Your task to perform on an android device: search for starred emails in the gmail app Image 0: 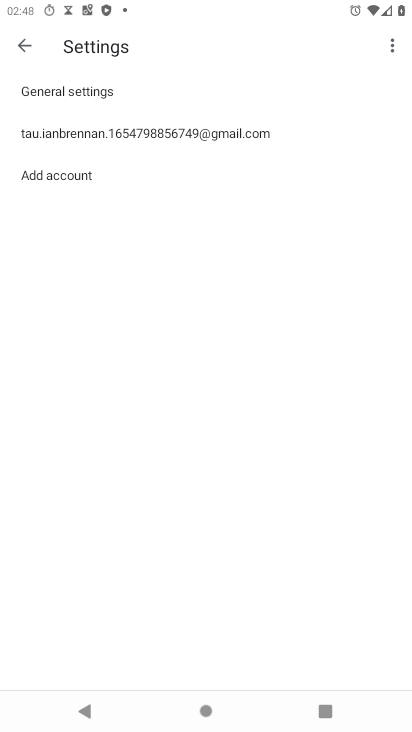
Step 0: press back button
Your task to perform on an android device: search for starred emails in the gmail app Image 1: 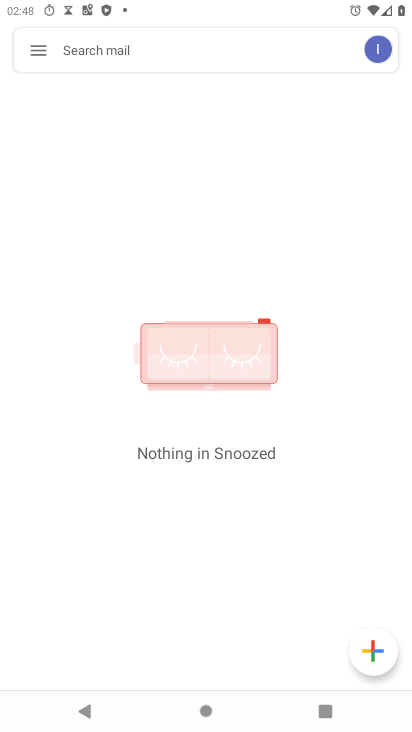
Step 1: click (35, 43)
Your task to perform on an android device: search for starred emails in the gmail app Image 2: 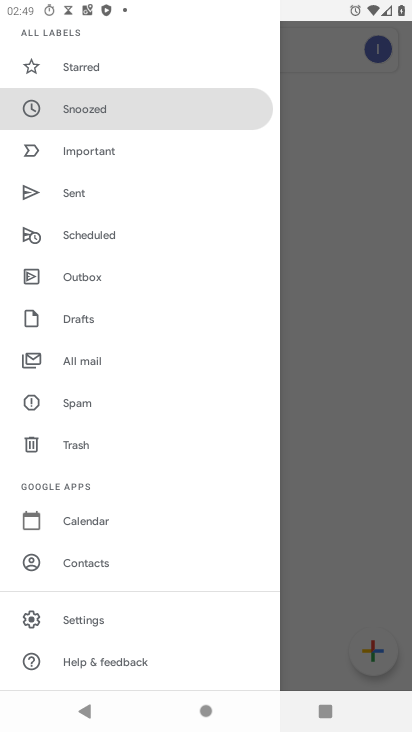
Step 2: click (97, 75)
Your task to perform on an android device: search for starred emails in the gmail app Image 3: 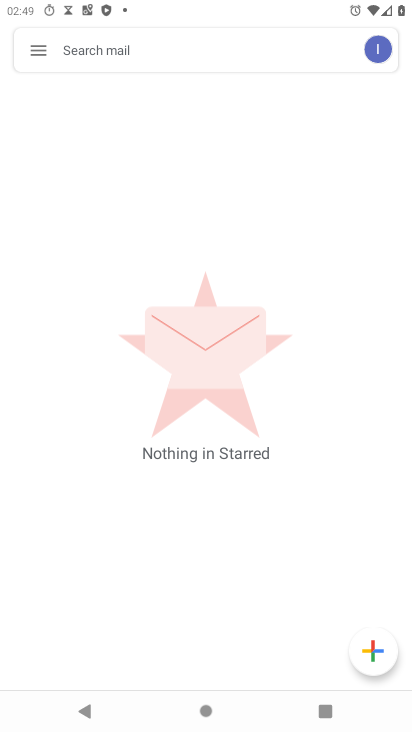
Step 3: task complete